Your task to perform on an android device: Open maps Image 0: 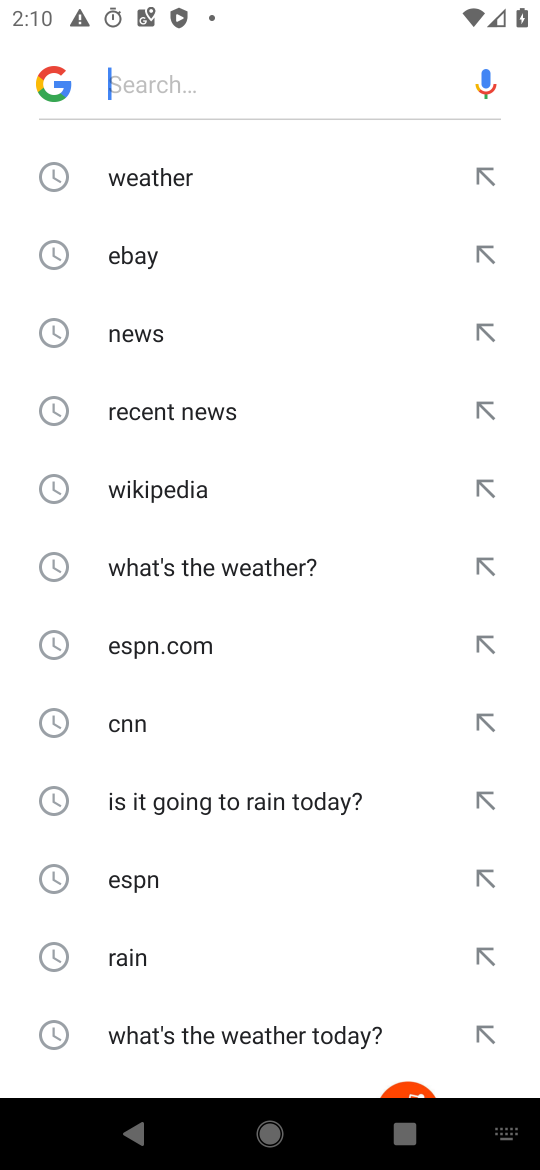
Step 0: press home button
Your task to perform on an android device: Open maps Image 1: 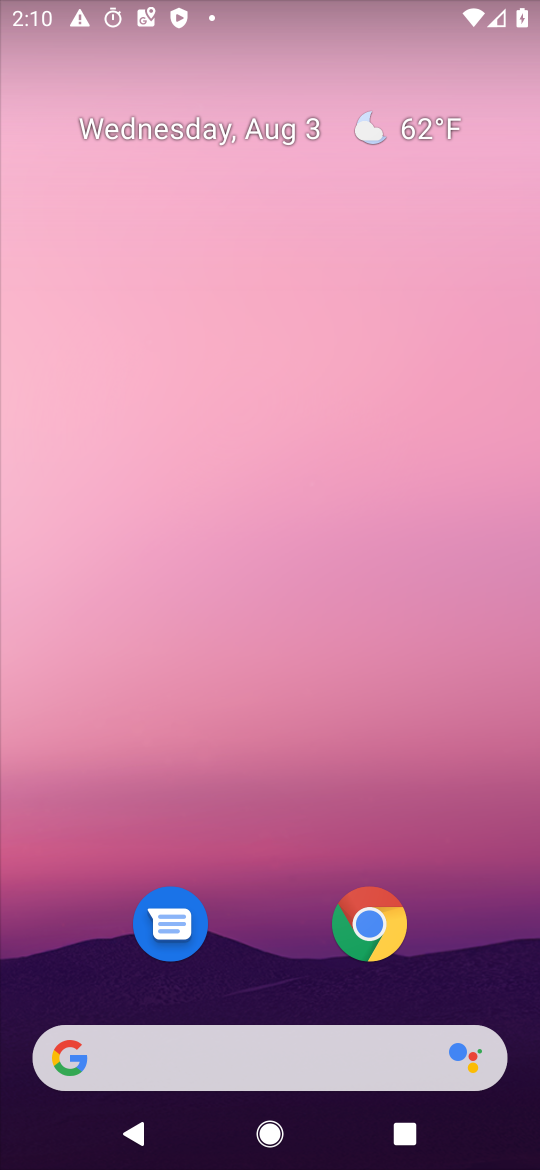
Step 1: drag from (273, 952) to (345, 1)
Your task to perform on an android device: Open maps Image 2: 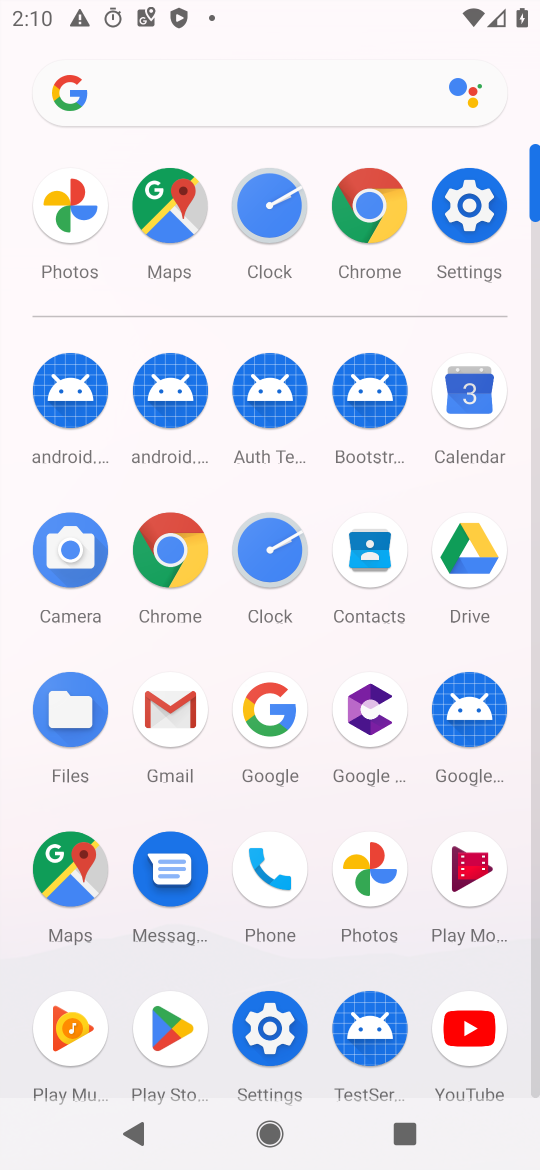
Step 2: click (68, 861)
Your task to perform on an android device: Open maps Image 3: 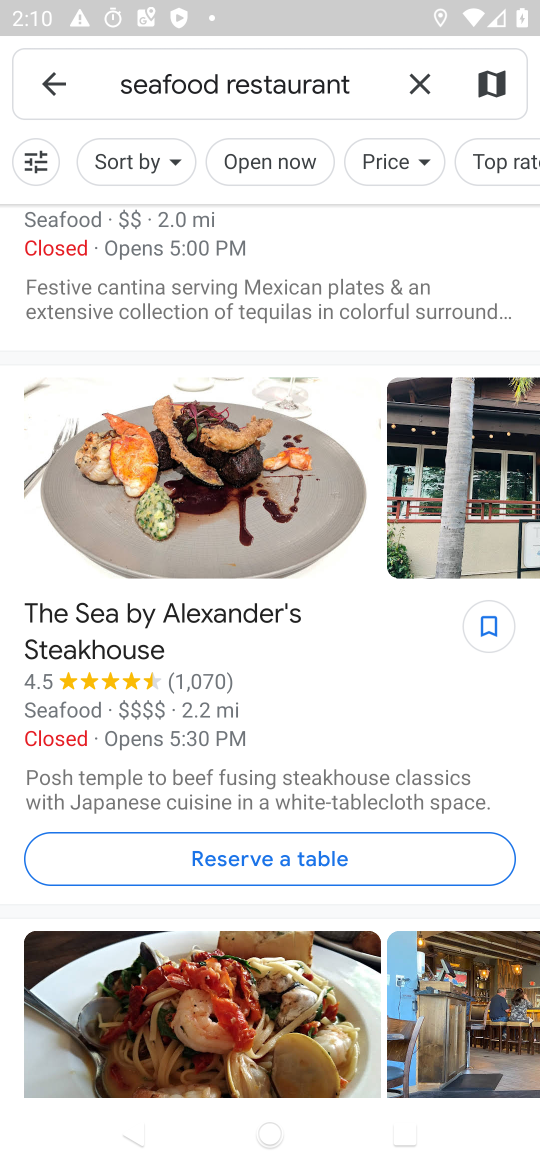
Step 3: click (51, 89)
Your task to perform on an android device: Open maps Image 4: 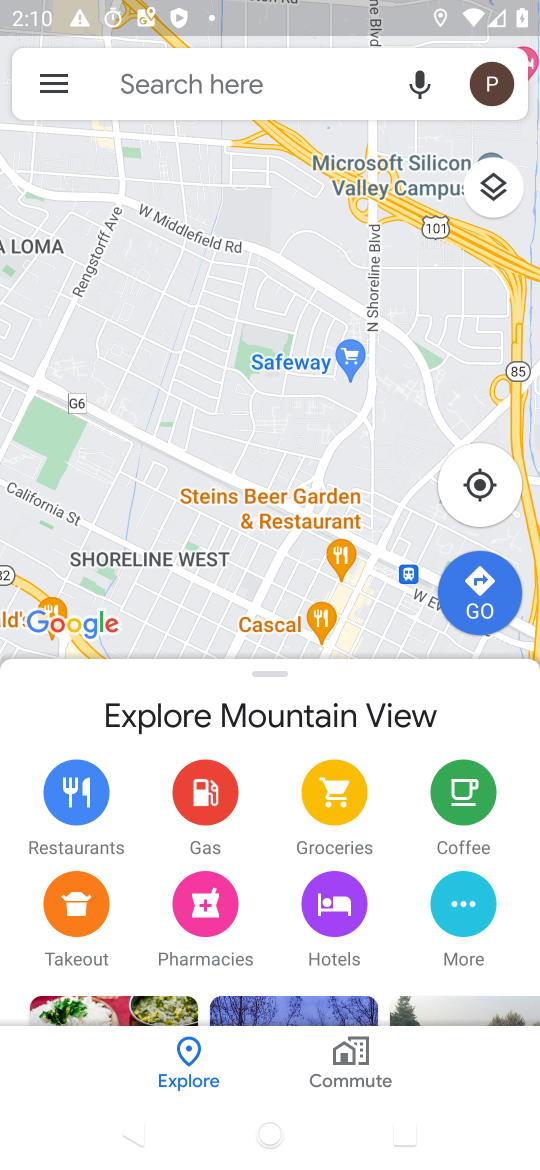
Step 4: task complete